Your task to perform on an android device: Open Wikipedia Image 0: 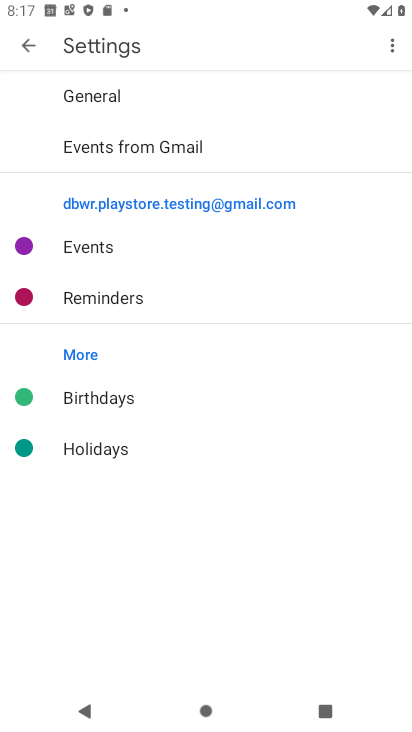
Step 0: press home button
Your task to perform on an android device: Open Wikipedia Image 1: 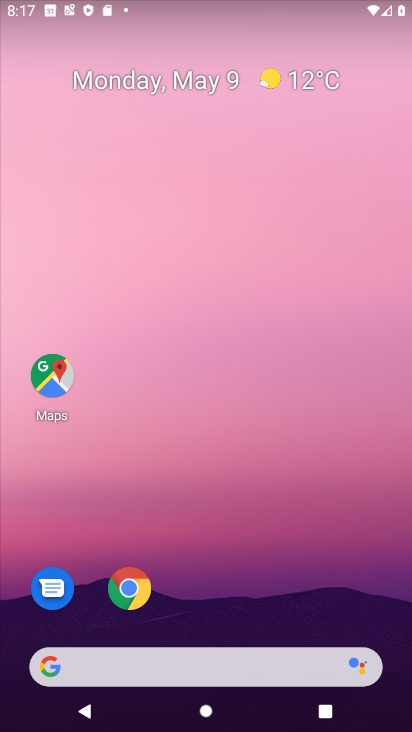
Step 1: drag from (119, 659) to (299, 91)
Your task to perform on an android device: Open Wikipedia Image 2: 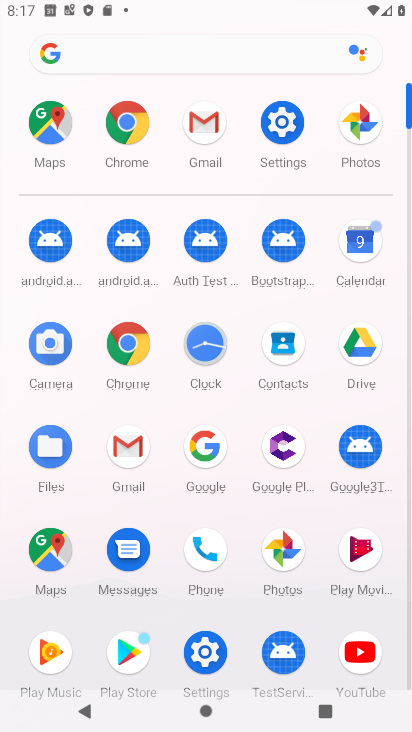
Step 2: click (130, 130)
Your task to perform on an android device: Open Wikipedia Image 3: 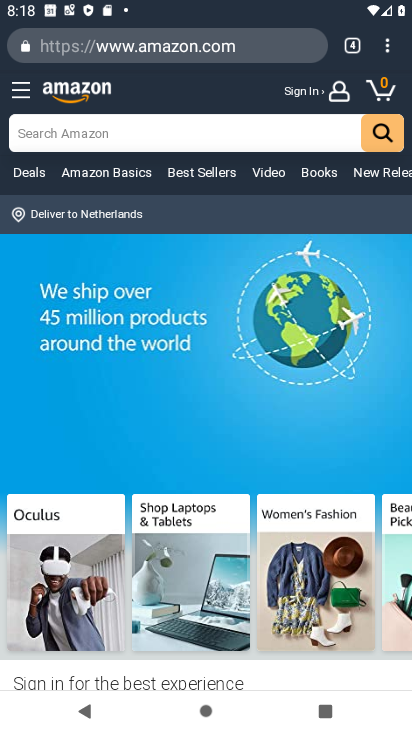
Step 3: drag from (386, 49) to (256, 90)
Your task to perform on an android device: Open Wikipedia Image 4: 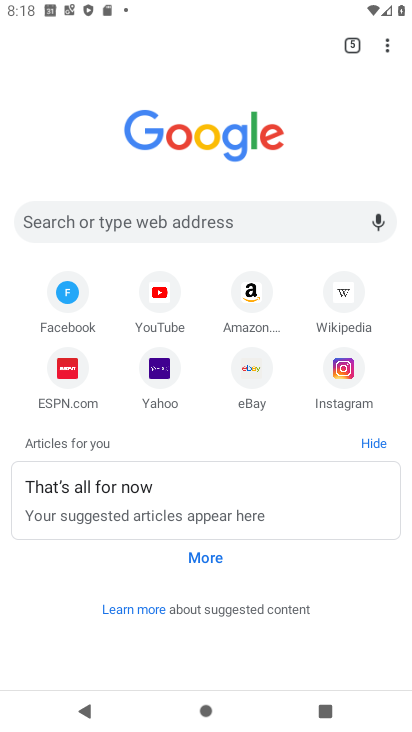
Step 4: click (345, 305)
Your task to perform on an android device: Open Wikipedia Image 5: 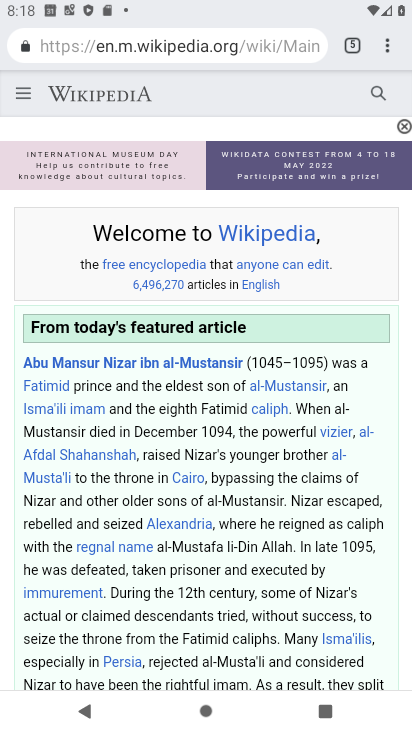
Step 5: task complete